Your task to perform on an android device: see creations saved in the google photos Image 0: 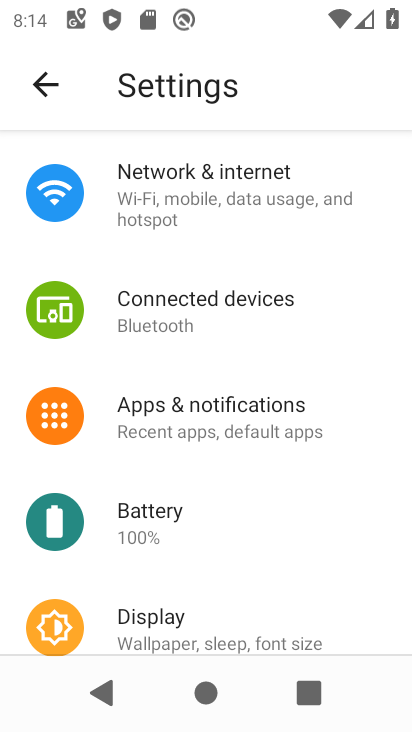
Step 0: press home button
Your task to perform on an android device: see creations saved in the google photos Image 1: 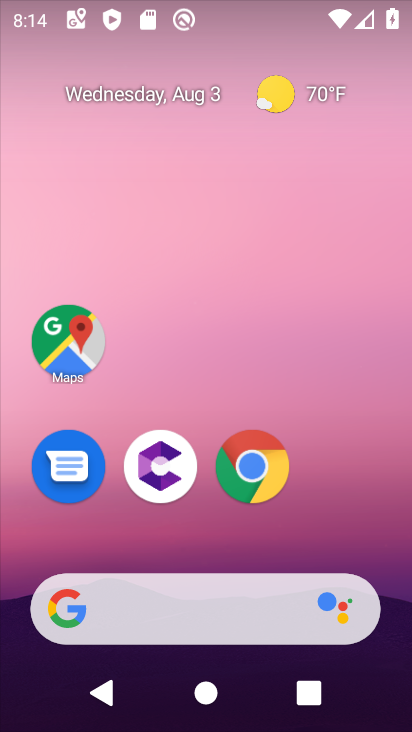
Step 1: drag from (334, 508) to (315, 322)
Your task to perform on an android device: see creations saved in the google photos Image 2: 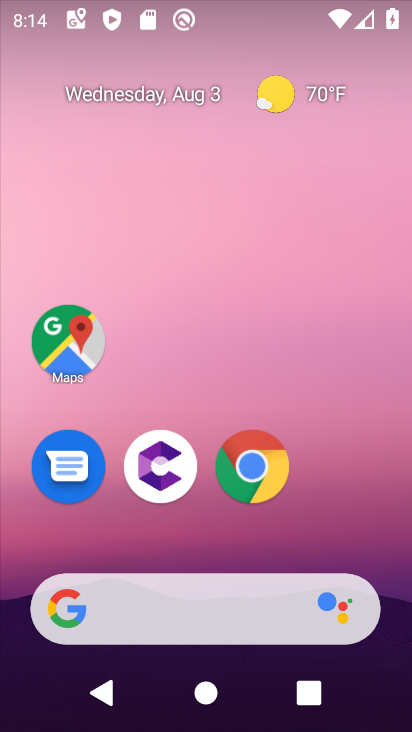
Step 2: drag from (331, 502) to (335, 181)
Your task to perform on an android device: see creations saved in the google photos Image 3: 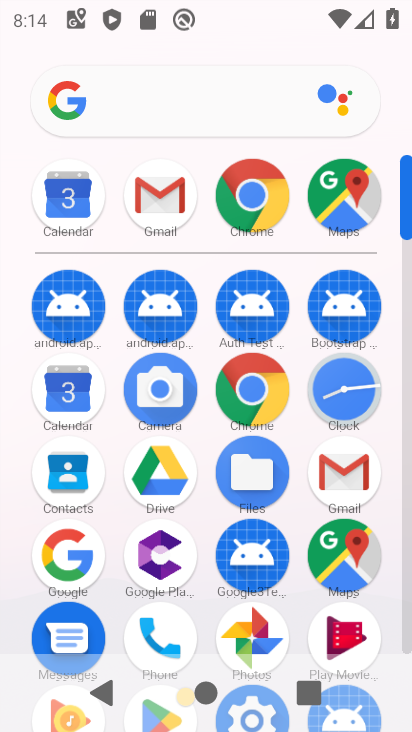
Step 3: click (260, 630)
Your task to perform on an android device: see creations saved in the google photos Image 4: 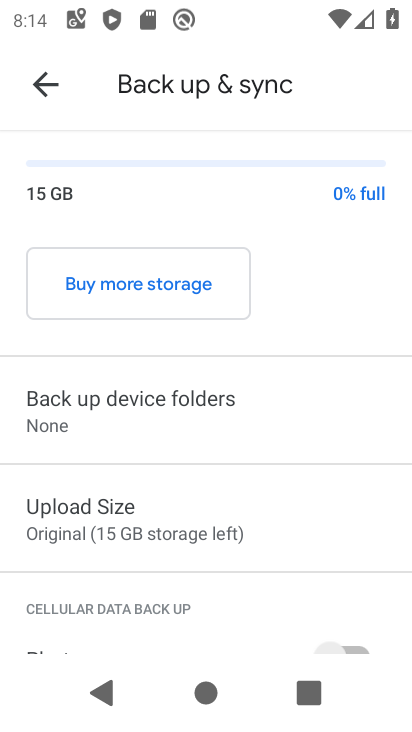
Step 4: click (77, 104)
Your task to perform on an android device: see creations saved in the google photos Image 5: 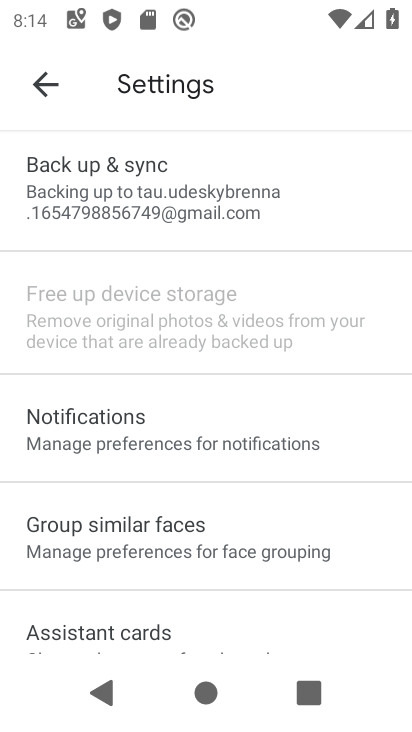
Step 5: click (56, 78)
Your task to perform on an android device: see creations saved in the google photos Image 6: 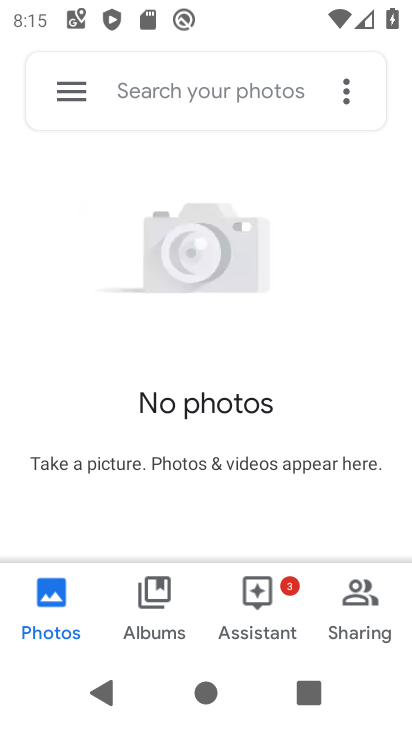
Step 6: click (157, 585)
Your task to perform on an android device: see creations saved in the google photos Image 7: 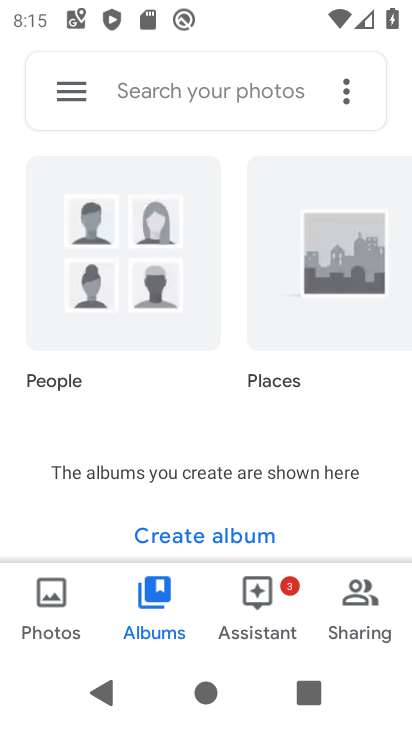
Step 7: drag from (330, 319) to (111, 284)
Your task to perform on an android device: see creations saved in the google photos Image 8: 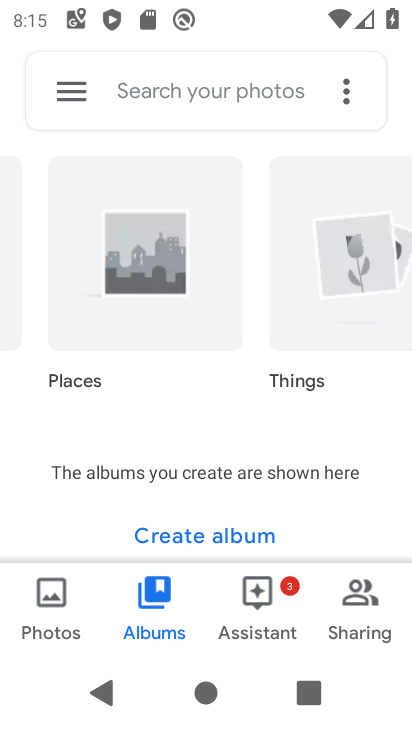
Step 8: click (244, 592)
Your task to perform on an android device: see creations saved in the google photos Image 9: 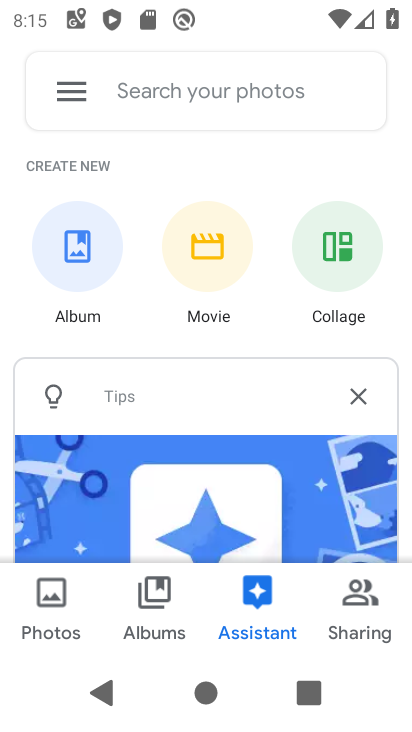
Step 9: task complete